Your task to perform on an android device: Search for the best way to get rid of a cold Image 0: 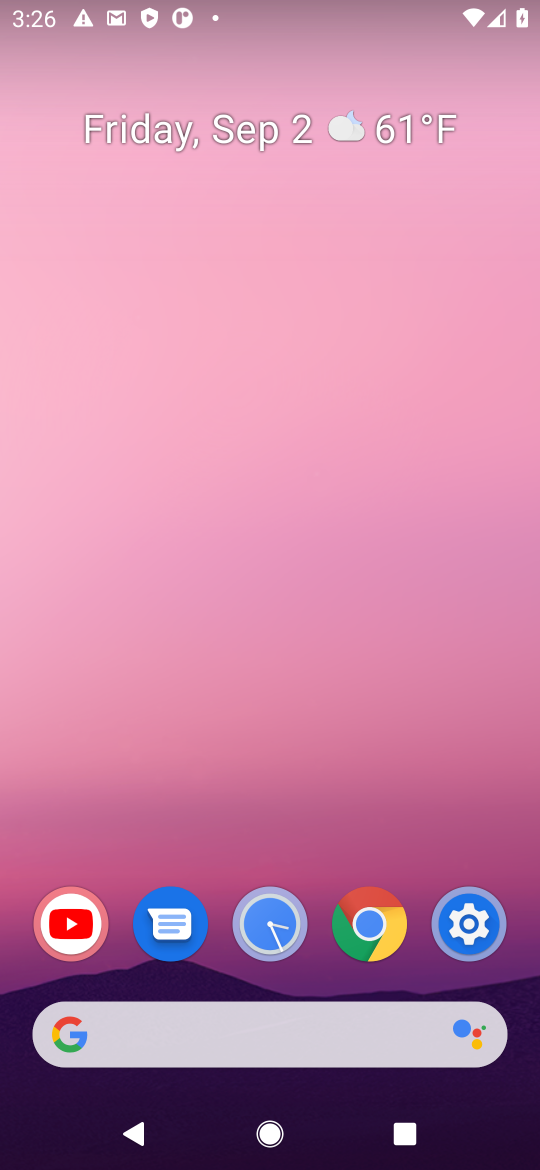
Step 0: press home button
Your task to perform on an android device: Search for the best way to get rid of a cold Image 1: 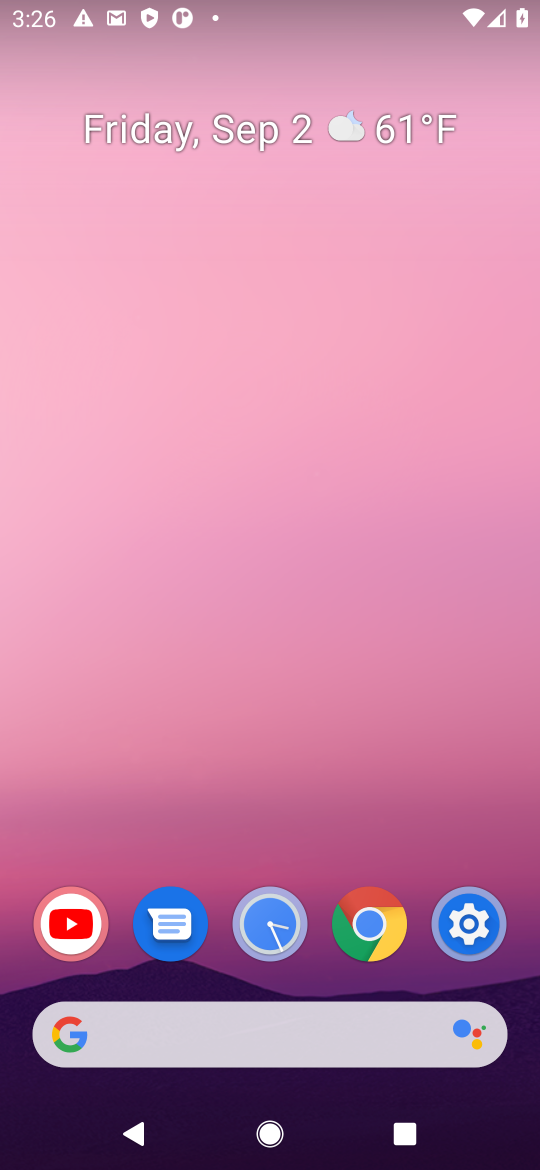
Step 1: click (378, 1019)
Your task to perform on an android device: Search for the best way to get rid of a cold Image 2: 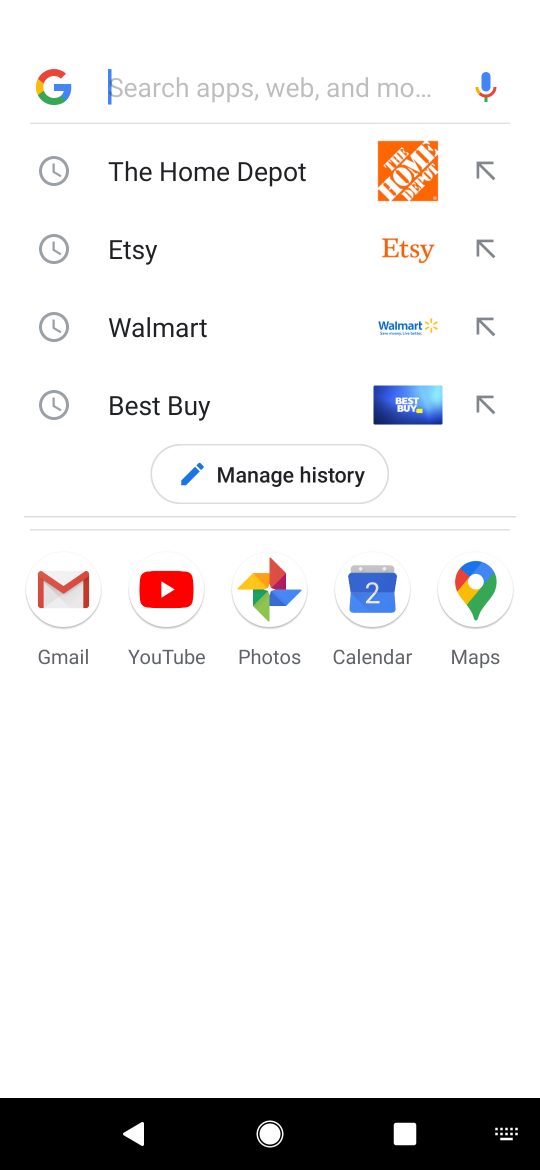
Step 2: press enter
Your task to perform on an android device: Search for the best way to get rid of a cold Image 3: 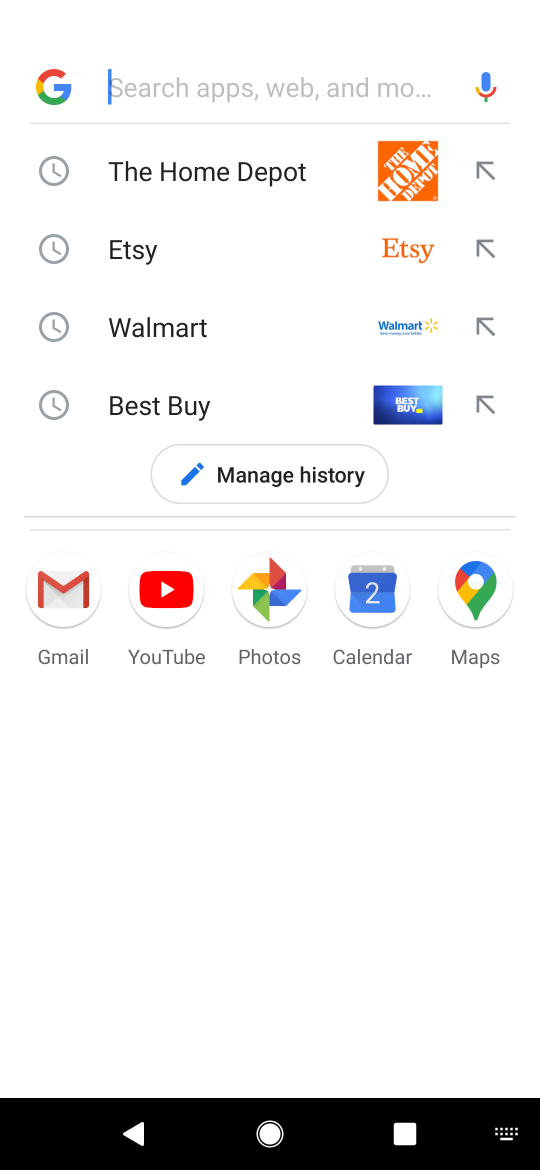
Step 3: type "best way to get rid of a cold"
Your task to perform on an android device: Search for the best way to get rid of a cold Image 4: 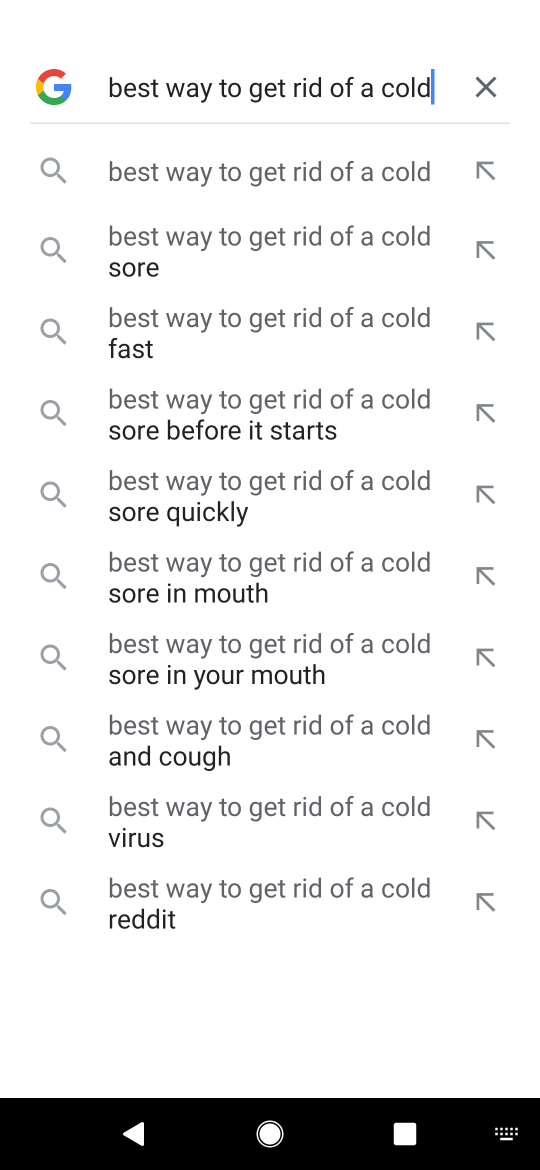
Step 4: click (326, 167)
Your task to perform on an android device: Search for the best way to get rid of a cold Image 5: 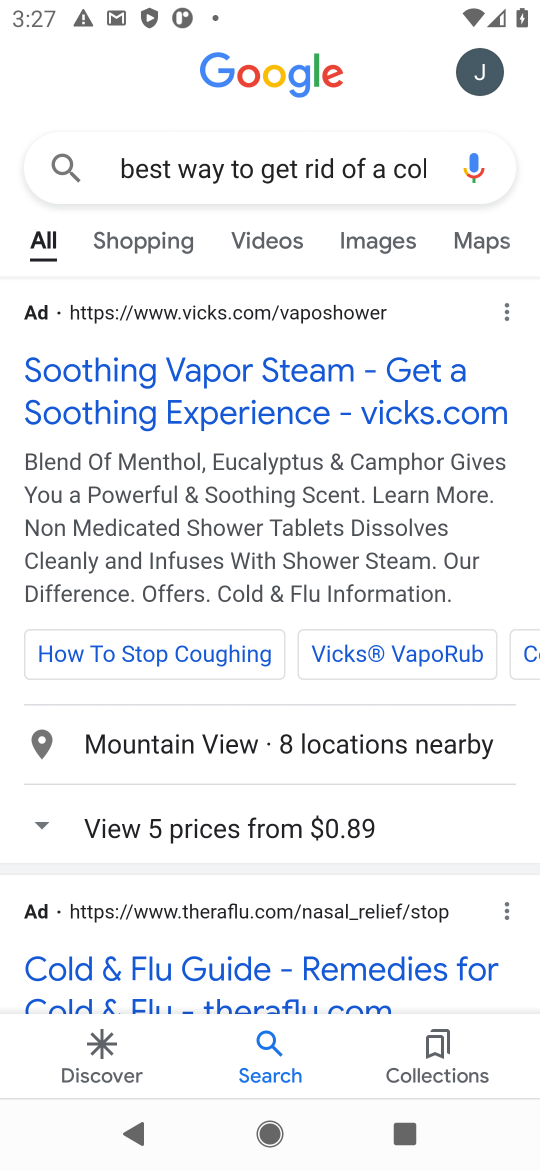
Step 5: task complete